Your task to perform on an android device: Open CNN.com Image 0: 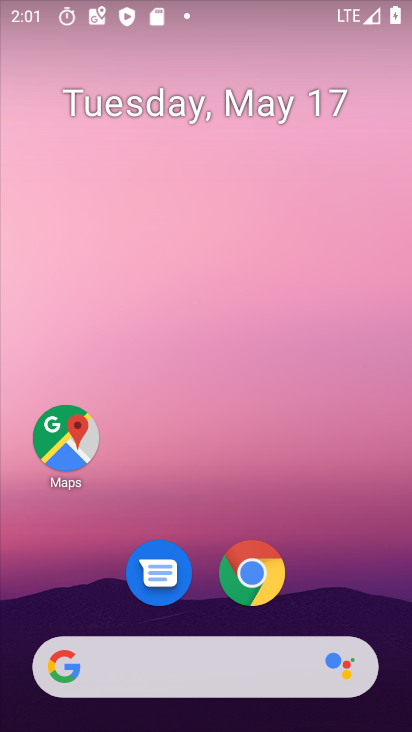
Step 0: click (258, 673)
Your task to perform on an android device: Open CNN.com Image 1: 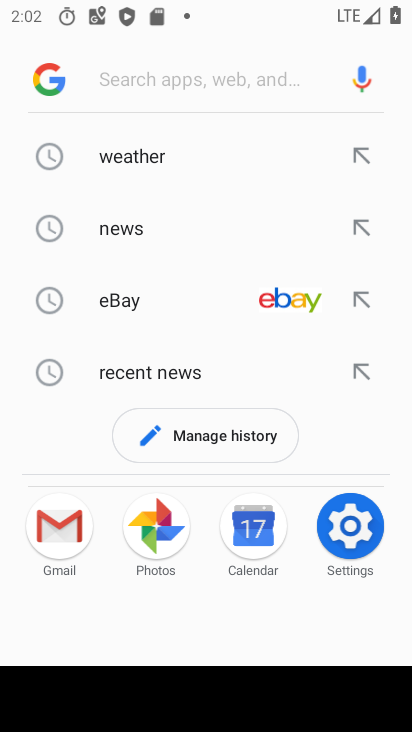
Step 1: type "cnn.com"
Your task to perform on an android device: Open CNN.com Image 2: 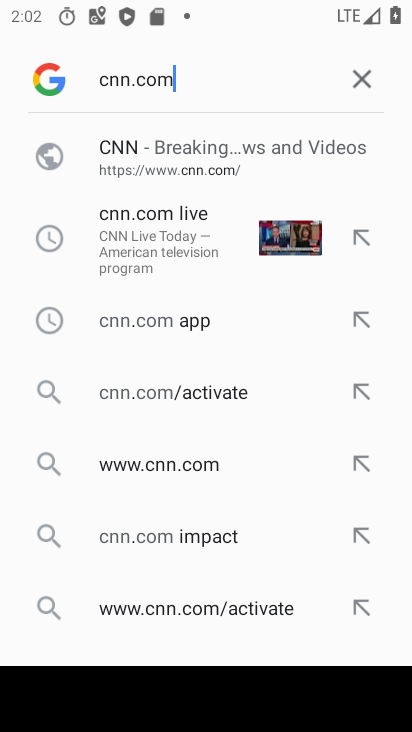
Step 2: click (185, 168)
Your task to perform on an android device: Open CNN.com Image 3: 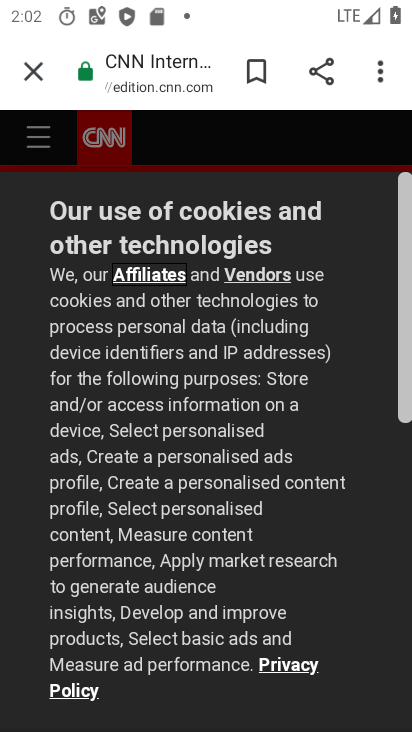
Step 3: task complete